Your task to perform on an android device: visit the assistant section in the google photos Image 0: 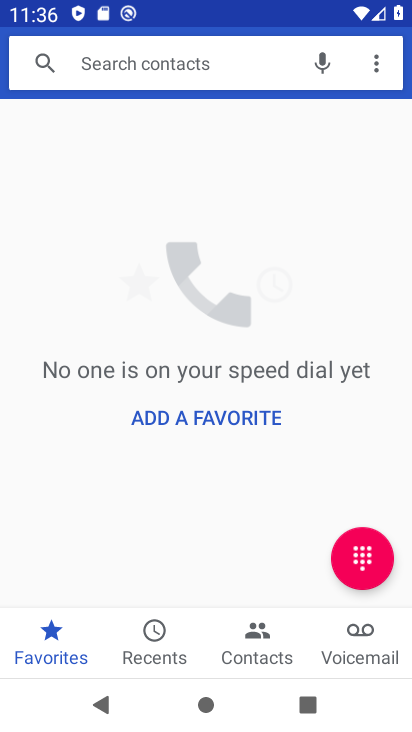
Step 0: press back button
Your task to perform on an android device: visit the assistant section in the google photos Image 1: 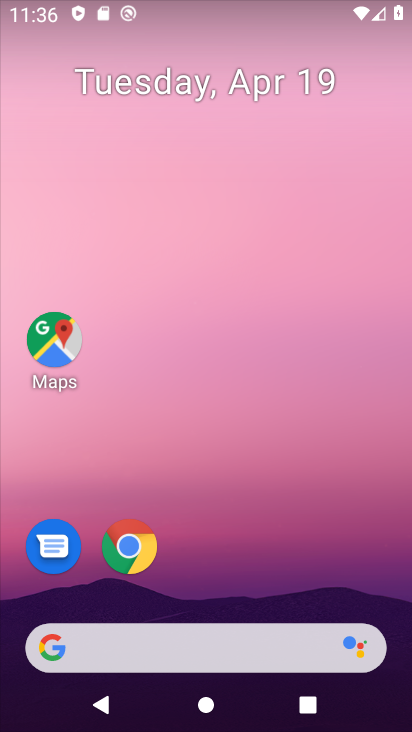
Step 1: drag from (365, 562) to (276, 33)
Your task to perform on an android device: visit the assistant section in the google photos Image 2: 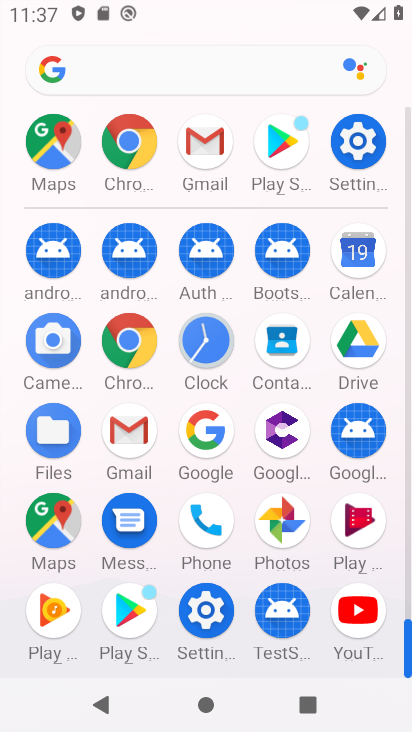
Step 2: click (284, 515)
Your task to perform on an android device: visit the assistant section in the google photos Image 3: 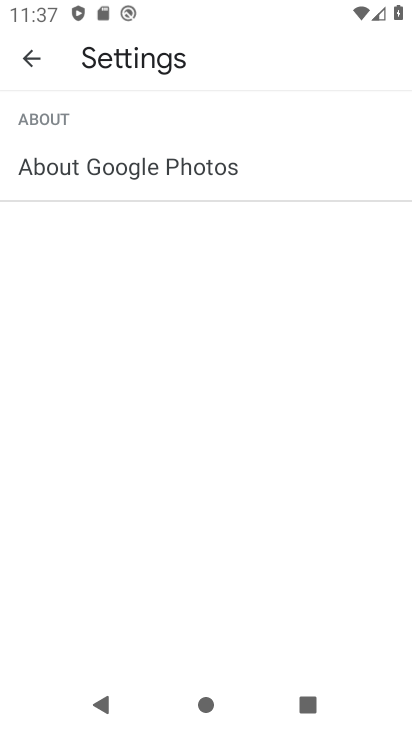
Step 3: click (44, 63)
Your task to perform on an android device: visit the assistant section in the google photos Image 4: 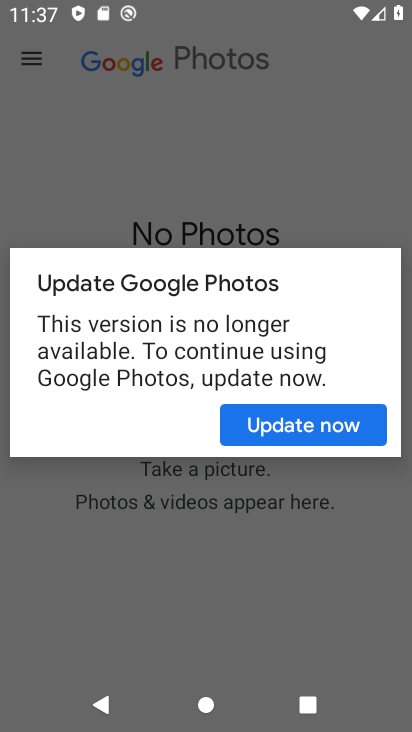
Step 4: click (314, 432)
Your task to perform on an android device: visit the assistant section in the google photos Image 5: 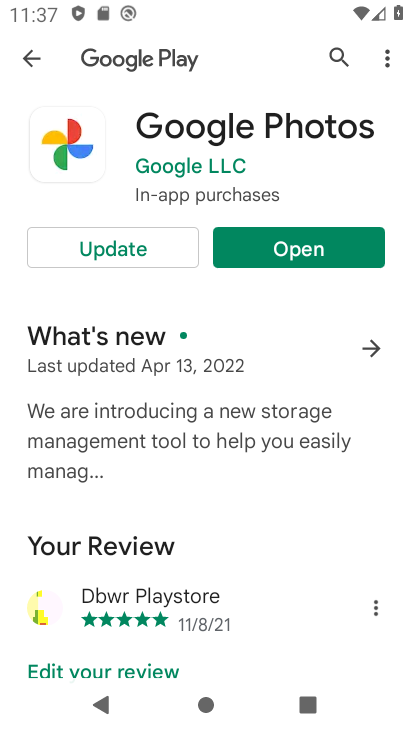
Step 5: click (91, 256)
Your task to perform on an android device: visit the assistant section in the google photos Image 6: 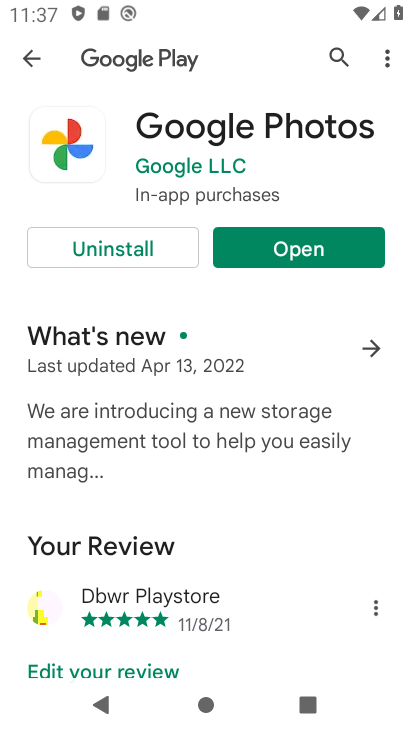
Step 6: click (310, 235)
Your task to perform on an android device: visit the assistant section in the google photos Image 7: 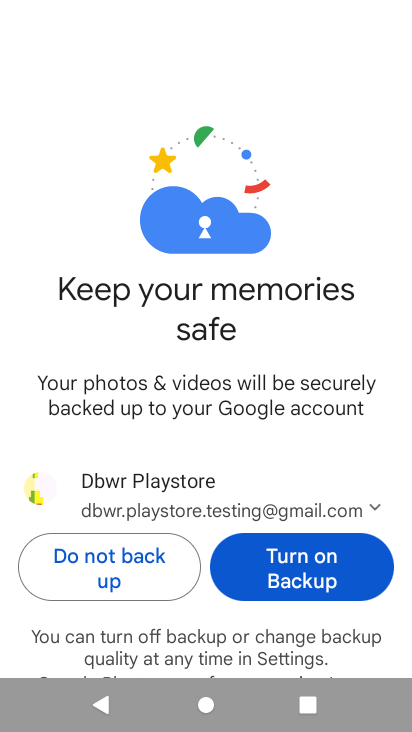
Step 7: drag from (215, 228) to (232, 43)
Your task to perform on an android device: visit the assistant section in the google photos Image 8: 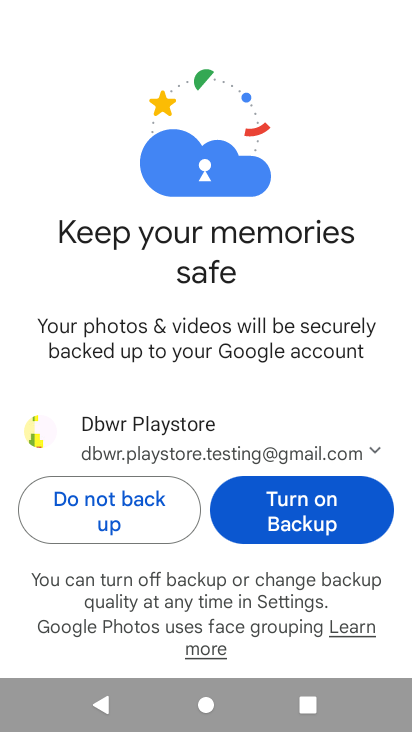
Step 8: drag from (223, 374) to (232, 166)
Your task to perform on an android device: visit the assistant section in the google photos Image 9: 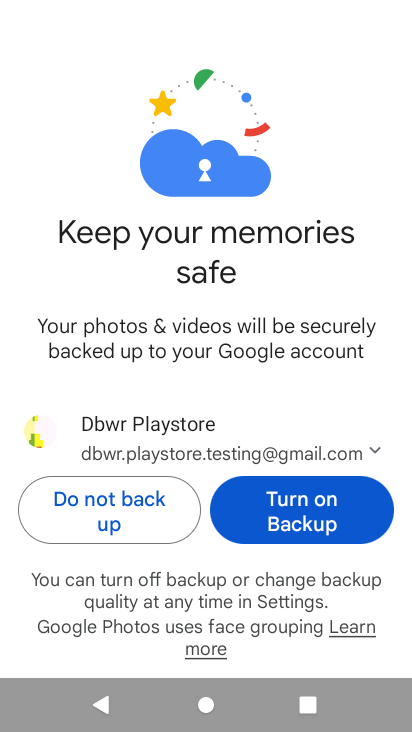
Step 9: click (291, 509)
Your task to perform on an android device: visit the assistant section in the google photos Image 10: 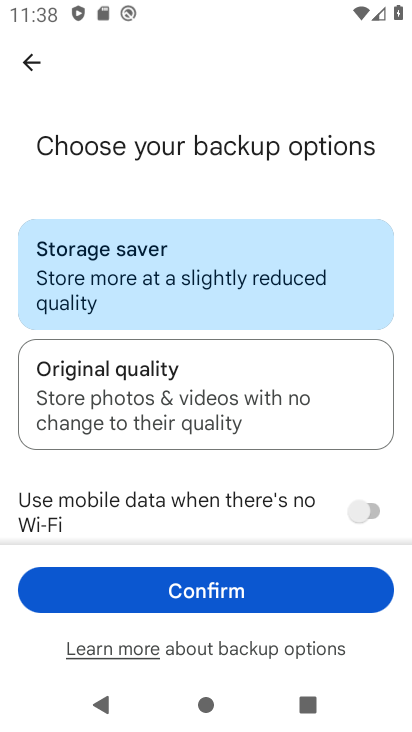
Step 10: click (194, 591)
Your task to perform on an android device: visit the assistant section in the google photos Image 11: 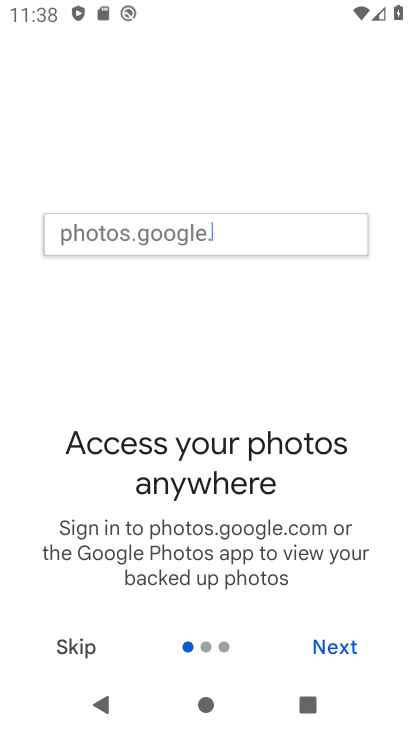
Step 11: click (329, 644)
Your task to perform on an android device: visit the assistant section in the google photos Image 12: 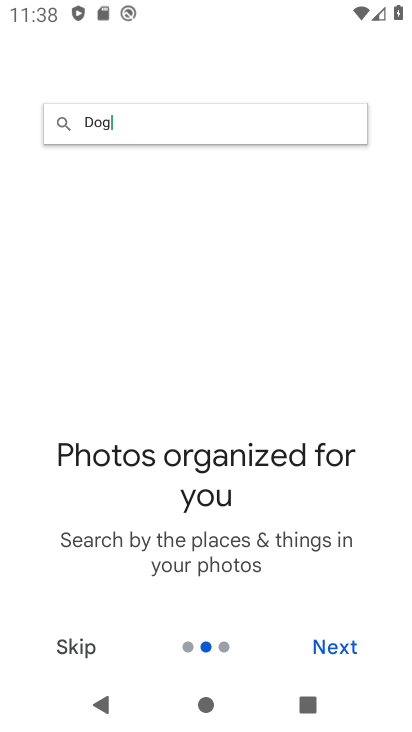
Step 12: click (329, 644)
Your task to perform on an android device: visit the assistant section in the google photos Image 13: 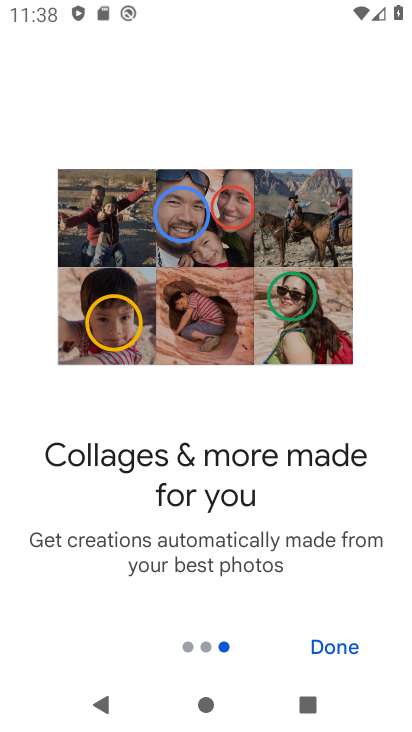
Step 13: click (329, 644)
Your task to perform on an android device: visit the assistant section in the google photos Image 14: 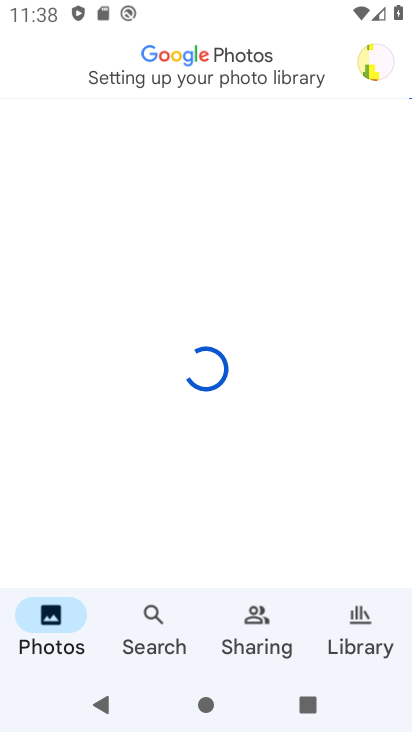
Step 14: click (329, 644)
Your task to perform on an android device: visit the assistant section in the google photos Image 15: 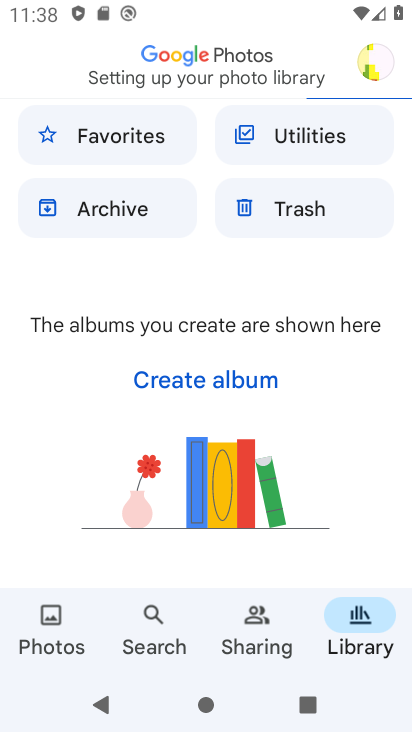
Step 15: click (265, 641)
Your task to perform on an android device: visit the assistant section in the google photos Image 16: 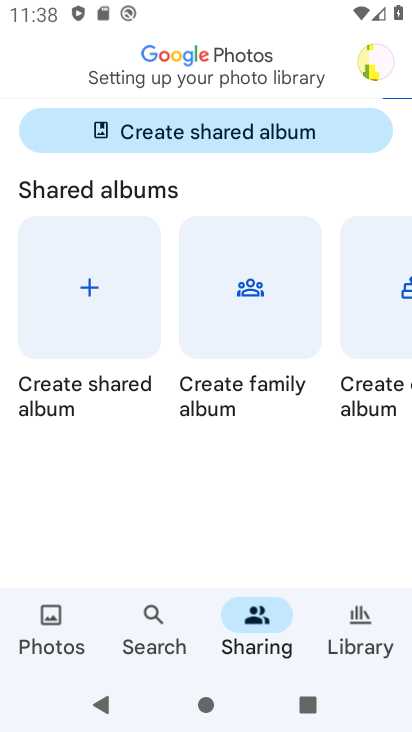
Step 16: task complete